Your task to perform on an android device: Open privacy settings Image 0: 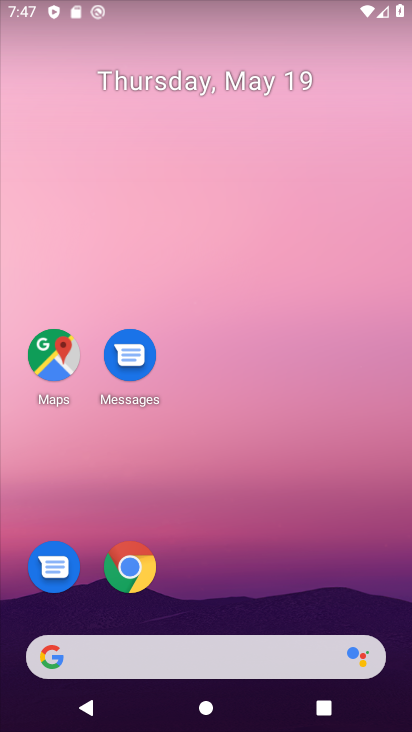
Step 0: drag from (211, 639) to (215, 35)
Your task to perform on an android device: Open privacy settings Image 1: 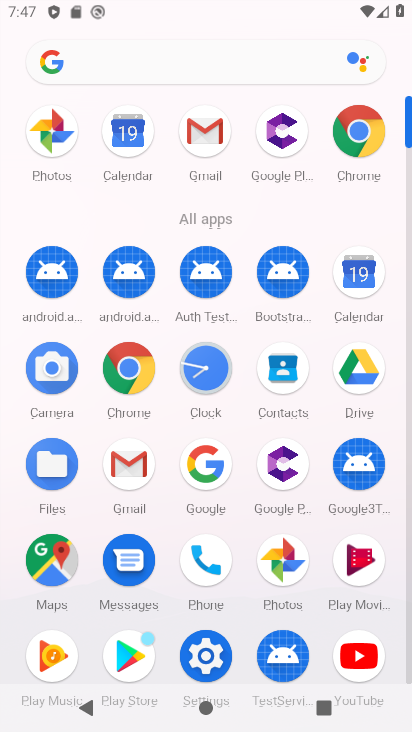
Step 1: click (202, 675)
Your task to perform on an android device: Open privacy settings Image 2: 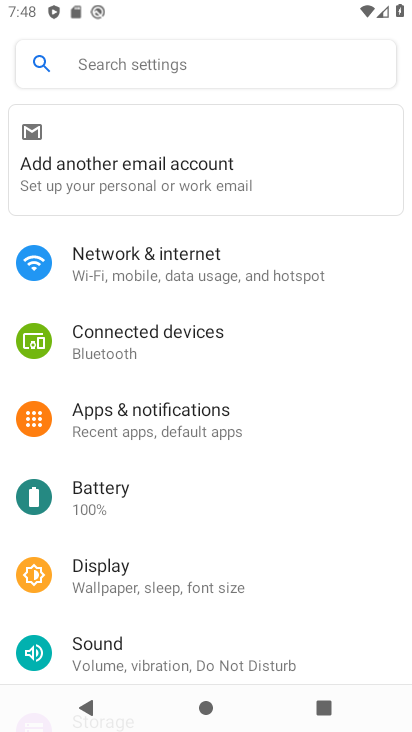
Step 2: drag from (208, 665) to (217, 226)
Your task to perform on an android device: Open privacy settings Image 3: 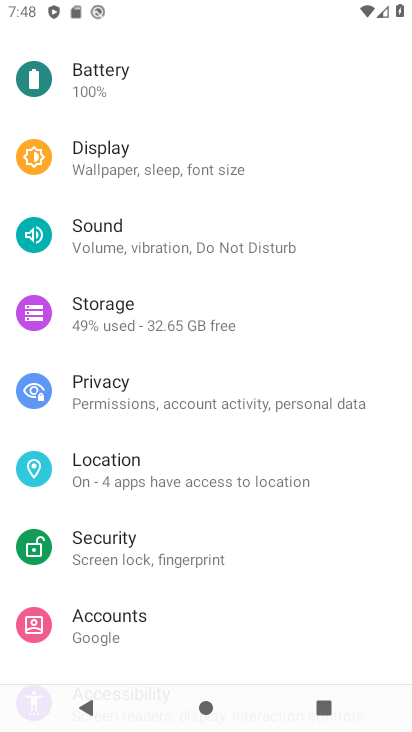
Step 3: click (99, 412)
Your task to perform on an android device: Open privacy settings Image 4: 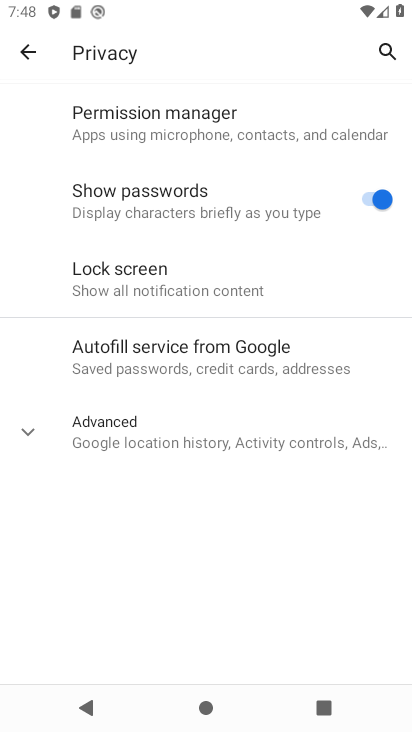
Step 4: click (100, 411)
Your task to perform on an android device: Open privacy settings Image 5: 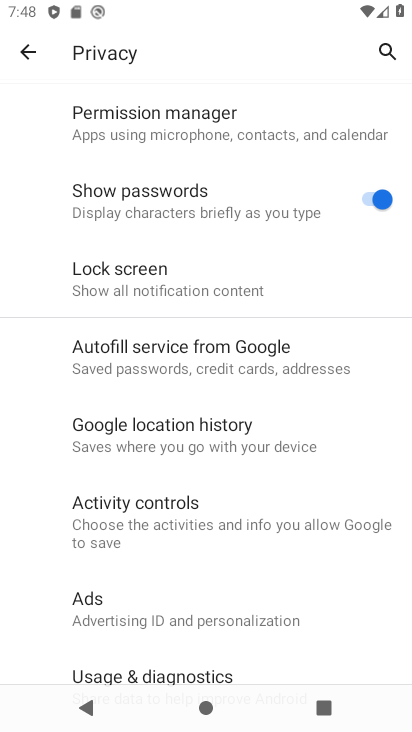
Step 5: task complete